Your task to perform on an android device: turn off notifications in google photos Image 0: 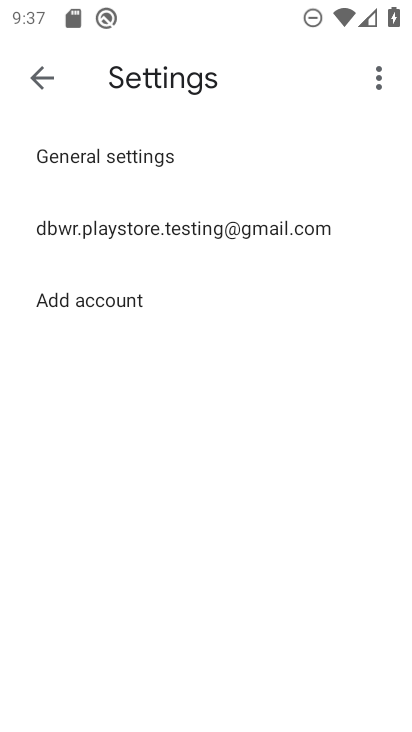
Step 0: press home button
Your task to perform on an android device: turn off notifications in google photos Image 1: 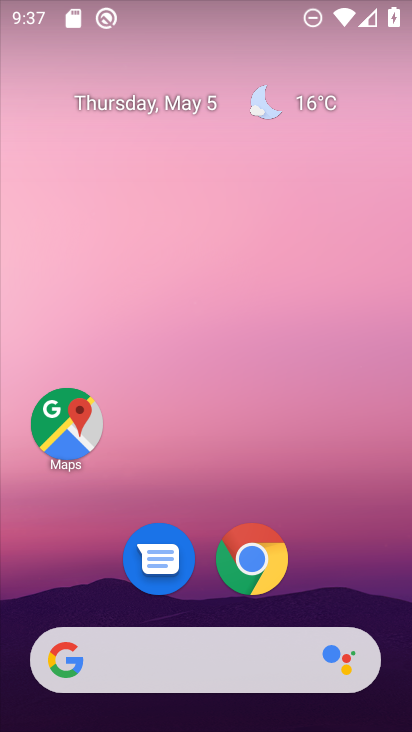
Step 1: drag from (363, 566) to (362, 101)
Your task to perform on an android device: turn off notifications in google photos Image 2: 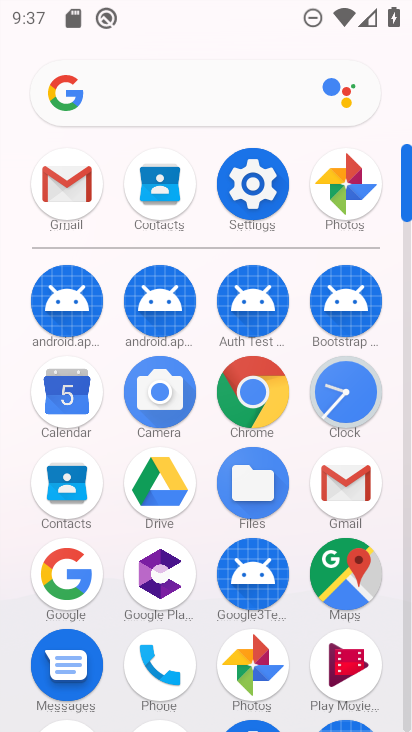
Step 2: click (349, 190)
Your task to perform on an android device: turn off notifications in google photos Image 3: 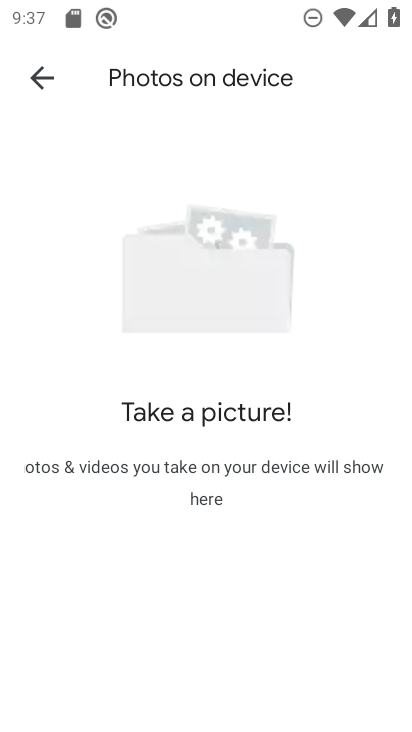
Step 3: click (32, 76)
Your task to perform on an android device: turn off notifications in google photos Image 4: 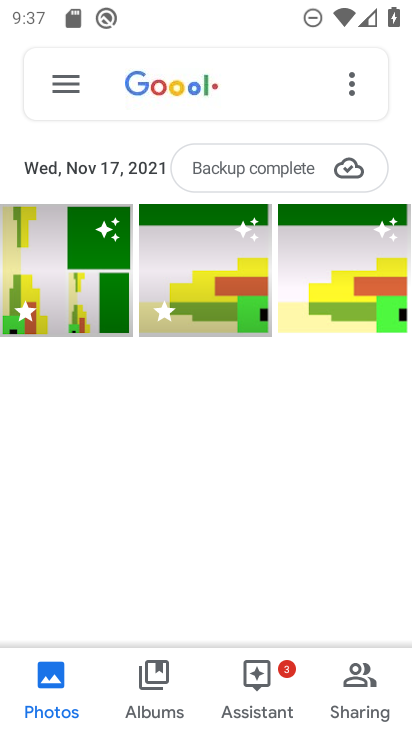
Step 4: click (59, 82)
Your task to perform on an android device: turn off notifications in google photos Image 5: 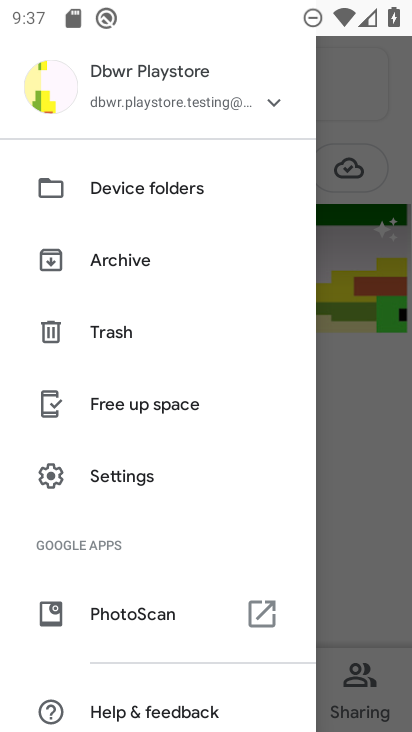
Step 5: click (142, 485)
Your task to perform on an android device: turn off notifications in google photos Image 6: 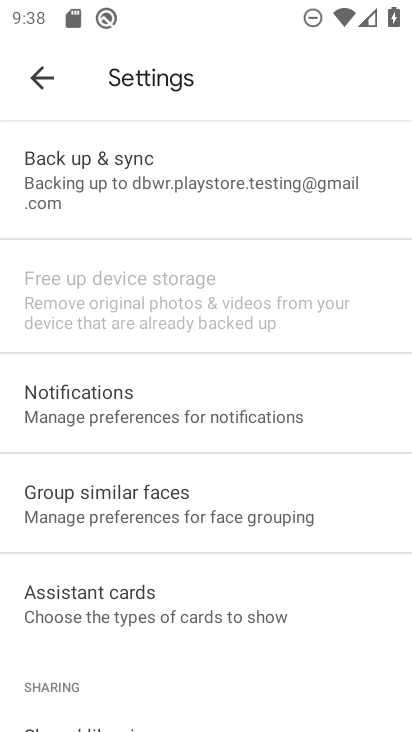
Step 6: click (99, 416)
Your task to perform on an android device: turn off notifications in google photos Image 7: 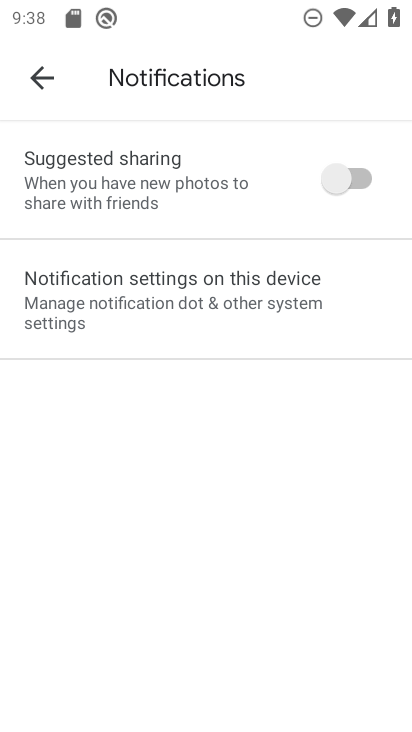
Step 7: click (256, 291)
Your task to perform on an android device: turn off notifications in google photos Image 8: 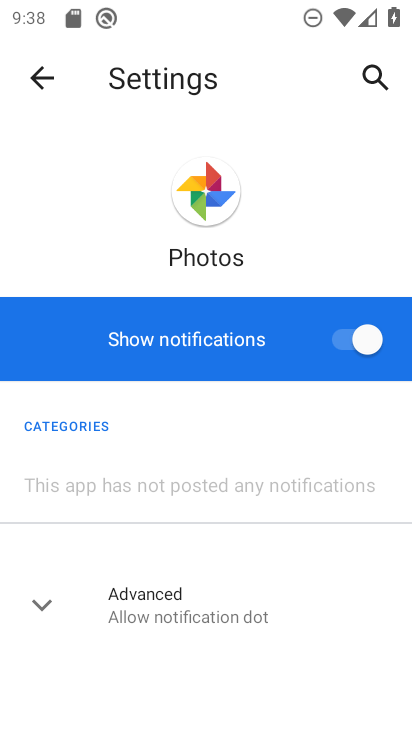
Step 8: click (356, 354)
Your task to perform on an android device: turn off notifications in google photos Image 9: 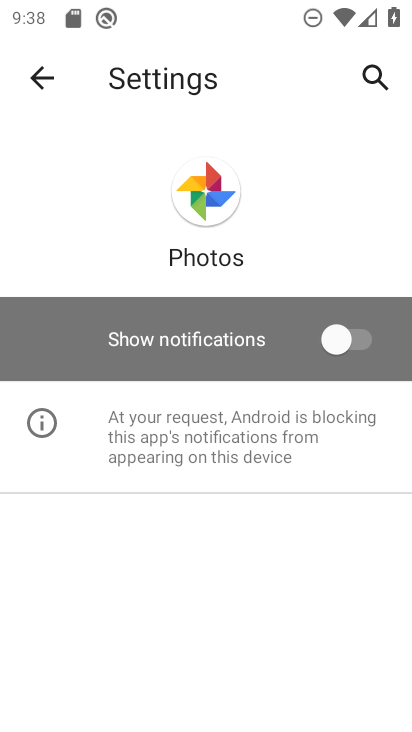
Step 9: task complete